Your task to perform on an android device: Search for "lenovo thinkpad" on ebay, select the first entry, and add it to the cart. Image 0: 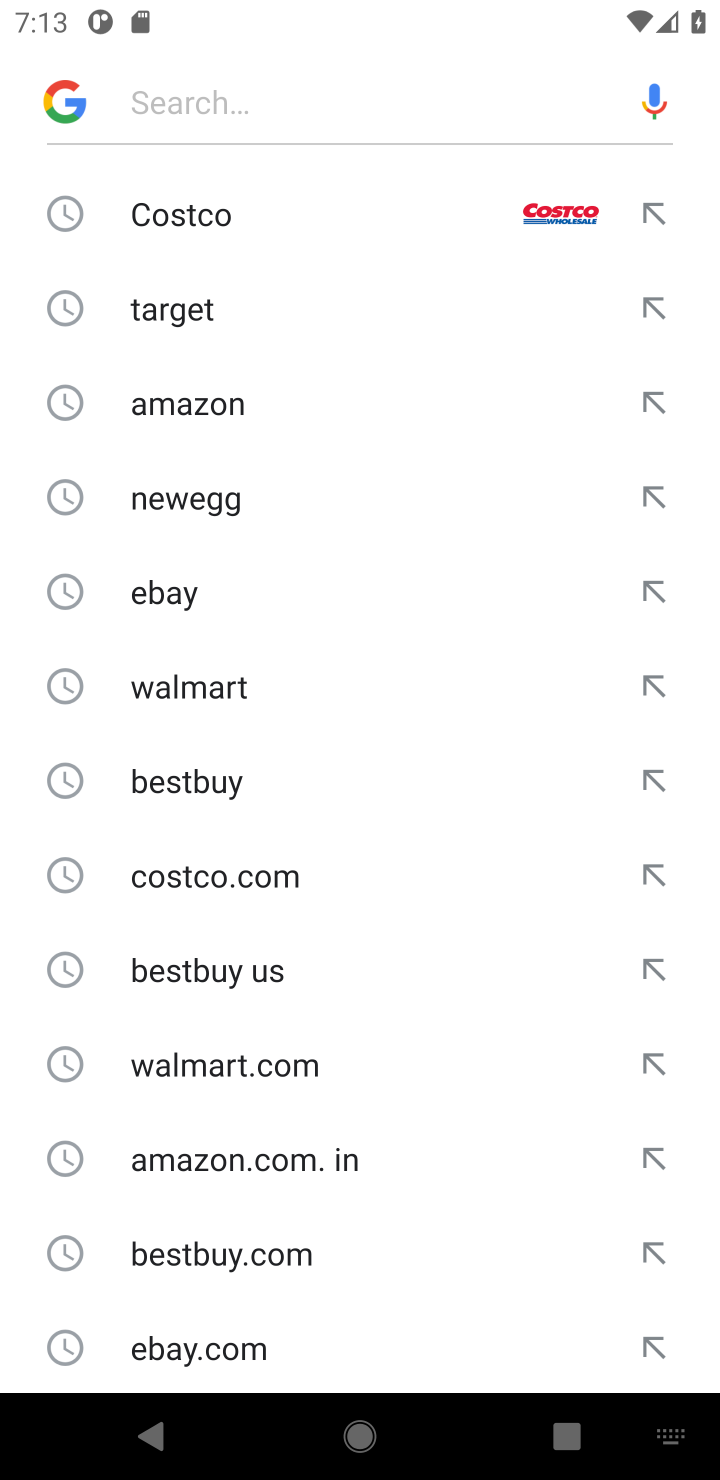
Step 0: press home button
Your task to perform on an android device: Search for "lenovo thinkpad" on ebay, select the first entry, and add it to the cart. Image 1: 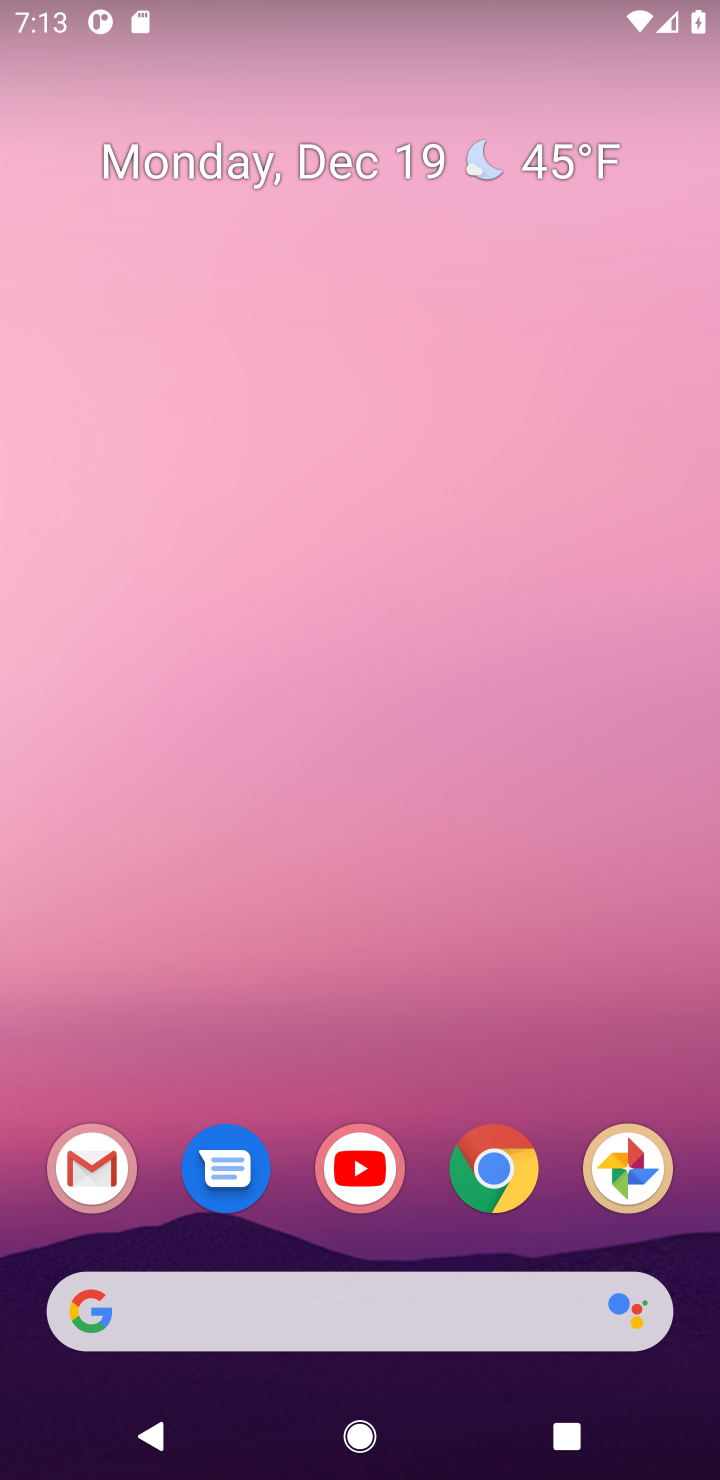
Step 1: click (494, 1174)
Your task to perform on an android device: Search for "lenovo thinkpad" on ebay, select the first entry, and add it to the cart. Image 2: 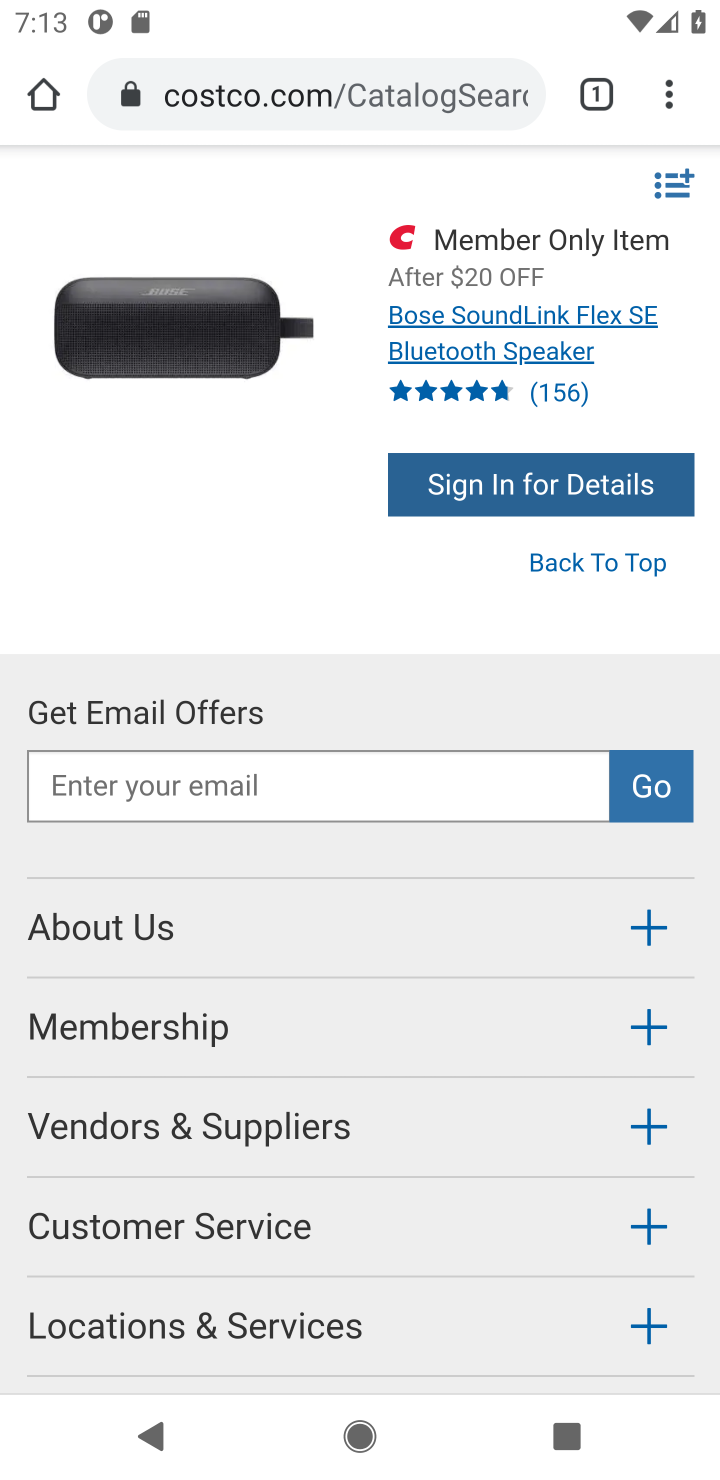
Step 2: click (218, 104)
Your task to perform on an android device: Search for "lenovo thinkpad" on ebay, select the first entry, and add it to the cart. Image 3: 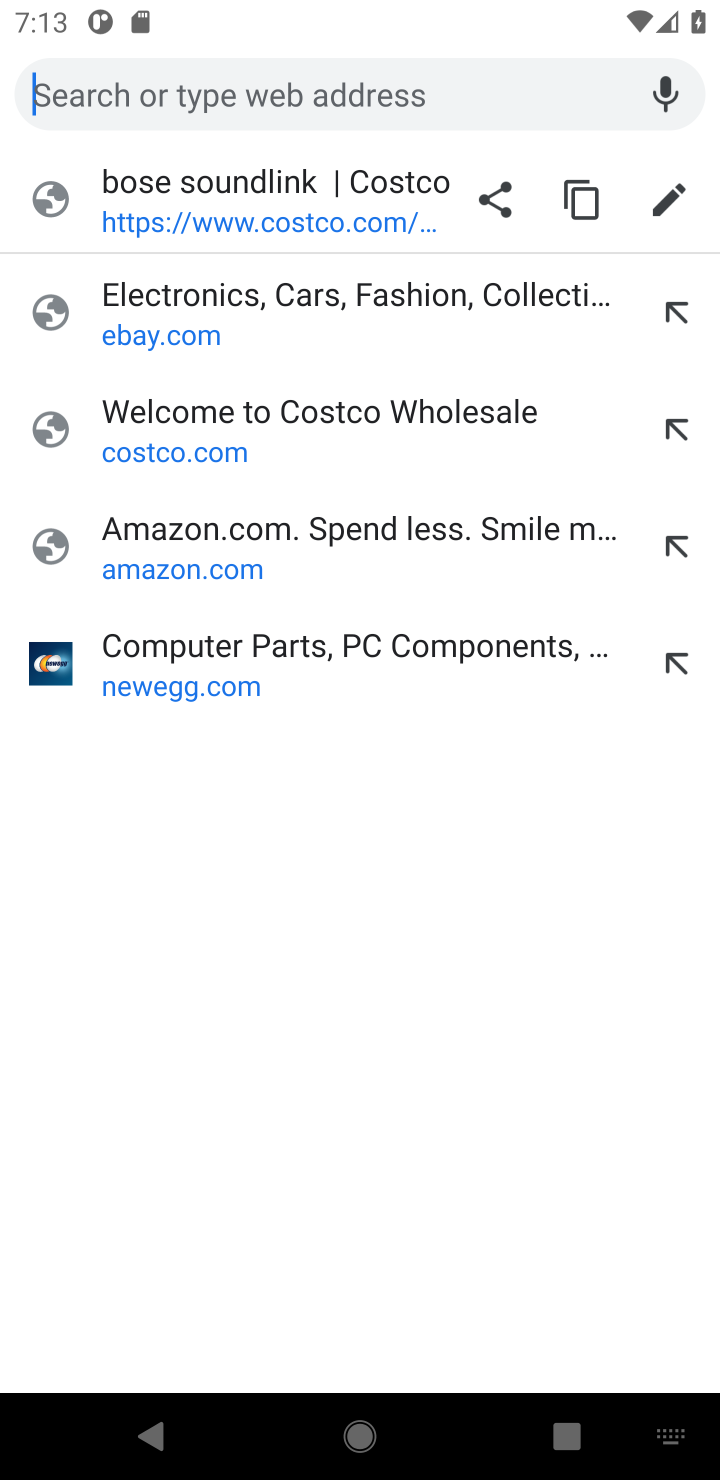
Step 3: click (165, 315)
Your task to perform on an android device: Search for "lenovo thinkpad" on ebay, select the first entry, and add it to the cart. Image 4: 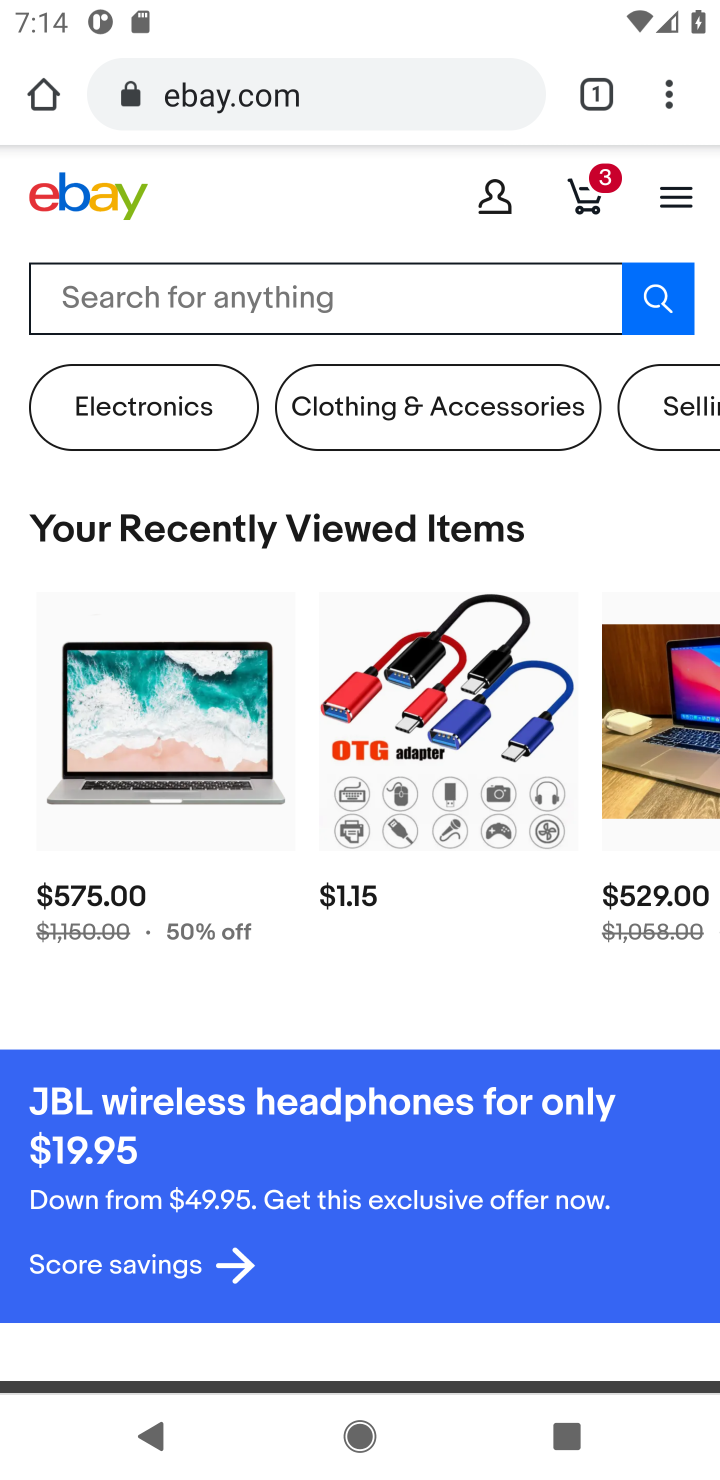
Step 4: click (108, 299)
Your task to perform on an android device: Search for "lenovo thinkpad" on ebay, select the first entry, and add it to the cart. Image 5: 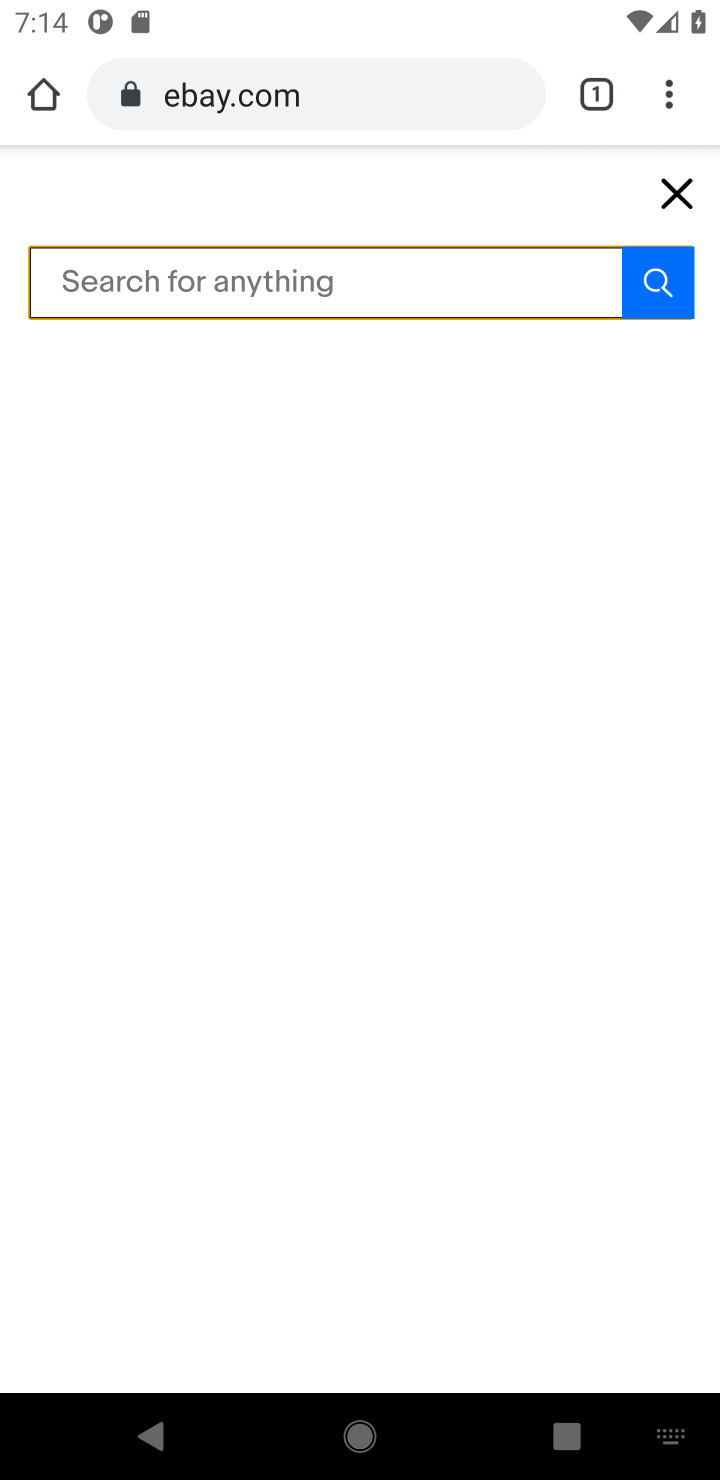
Step 5: type "lenovo thinkpad"
Your task to perform on an android device: Search for "lenovo thinkpad" on ebay, select the first entry, and add it to the cart. Image 6: 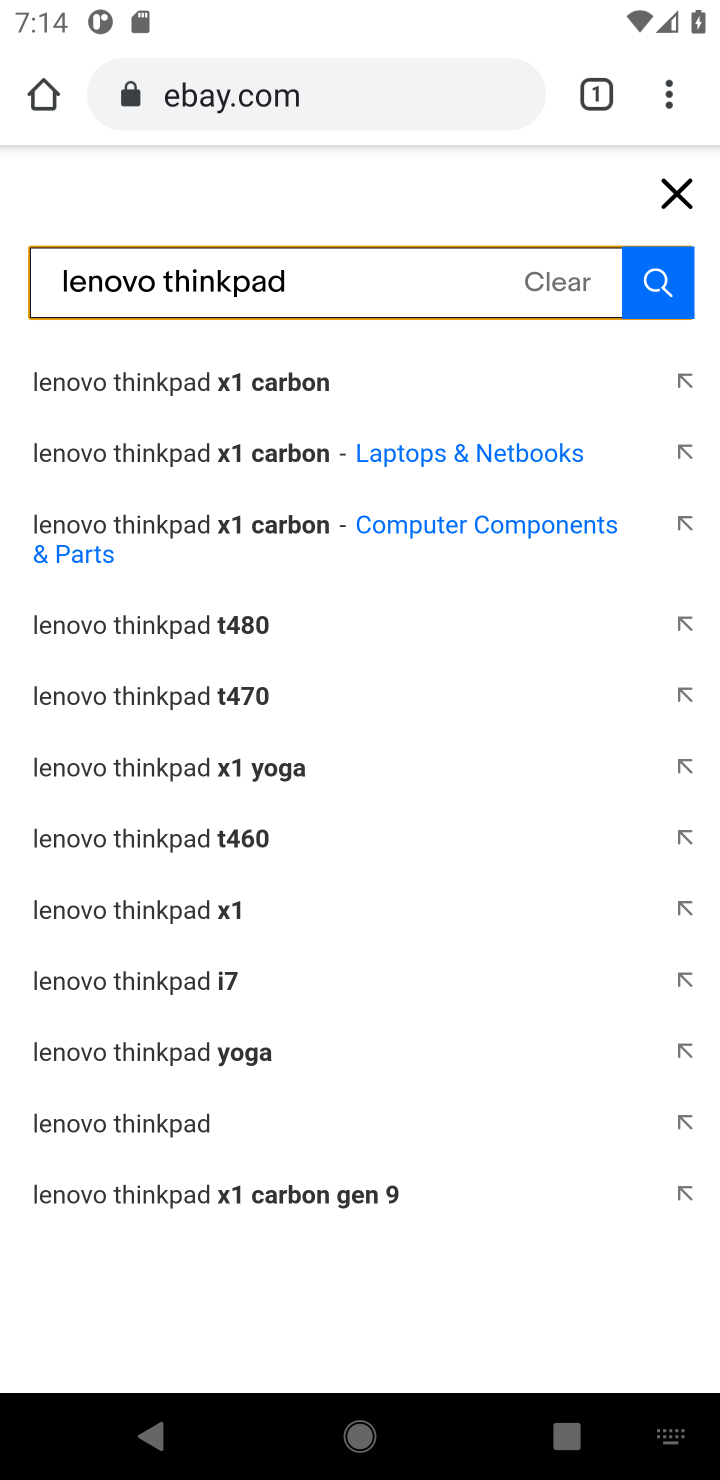
Step 6: click (180, 1124)
Your task to perform on an android device: Search for "lenovo thinkpad" on ebay, select the first entry, and add it to the cart. Image 7: 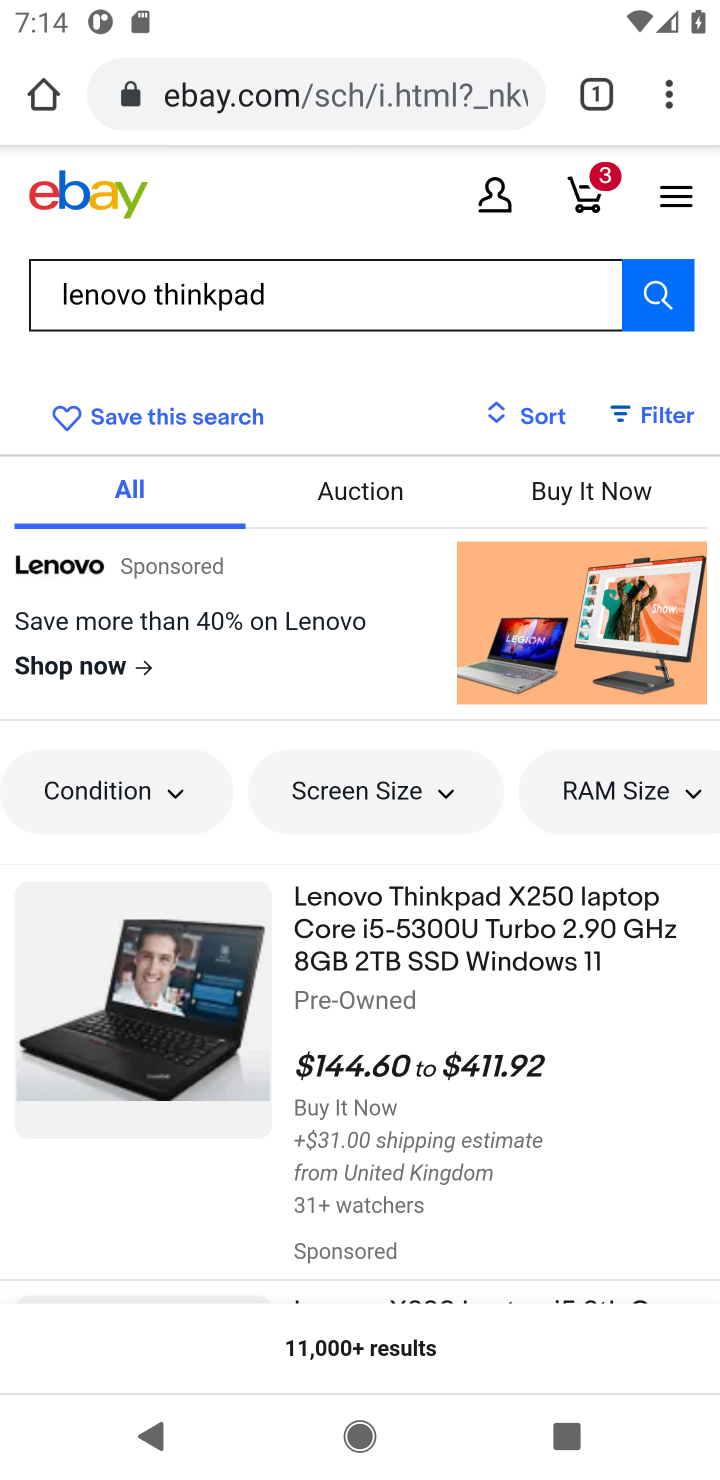
Step 7: drag from (267, 1049) to (311, 694)
Your task to perform on an android device: Search for "lenovo thinkpad" on ebay, select the first entry, and add it to the cart. Image 8: 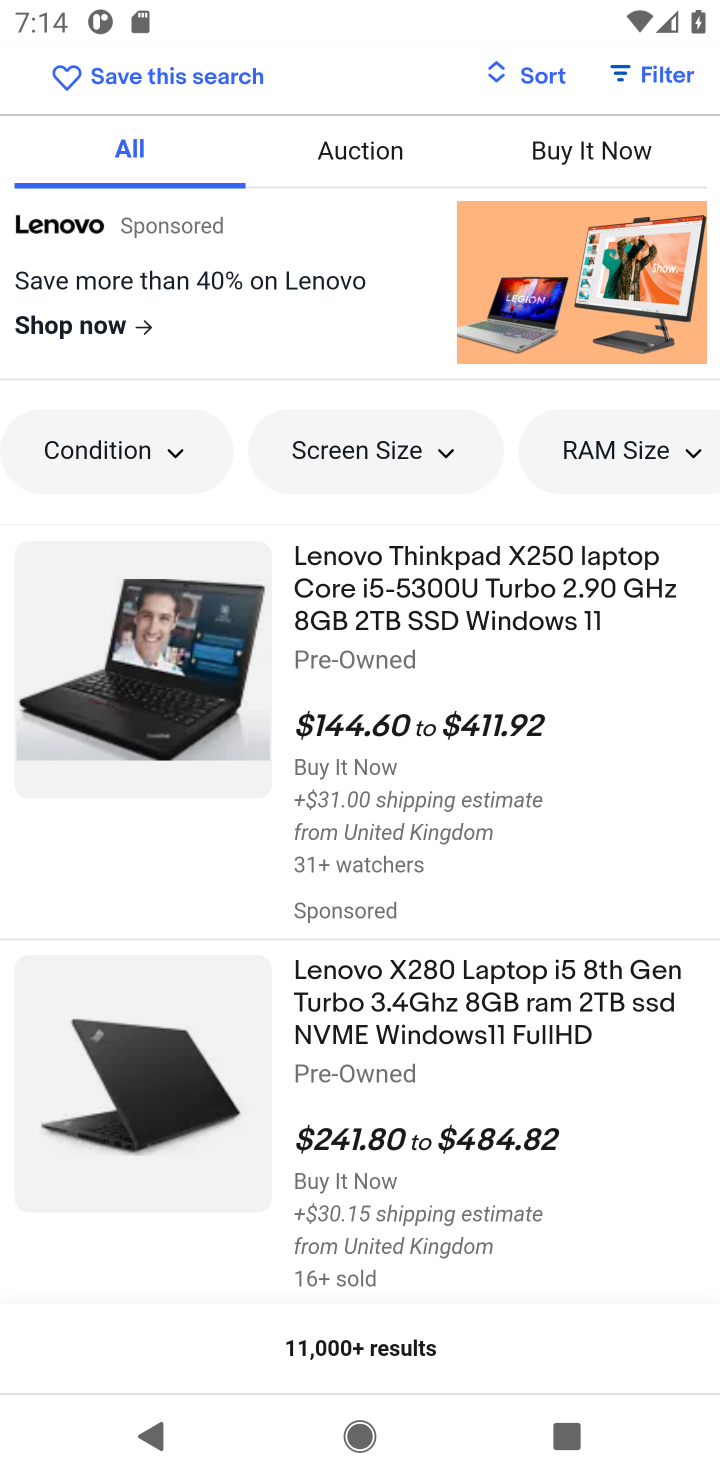
Step 8: click (400, 614)
Your task to perform on an android device: Search for "lenovo thinkpad" on ebay, select the first entry, and add it to the cart. Image 9: 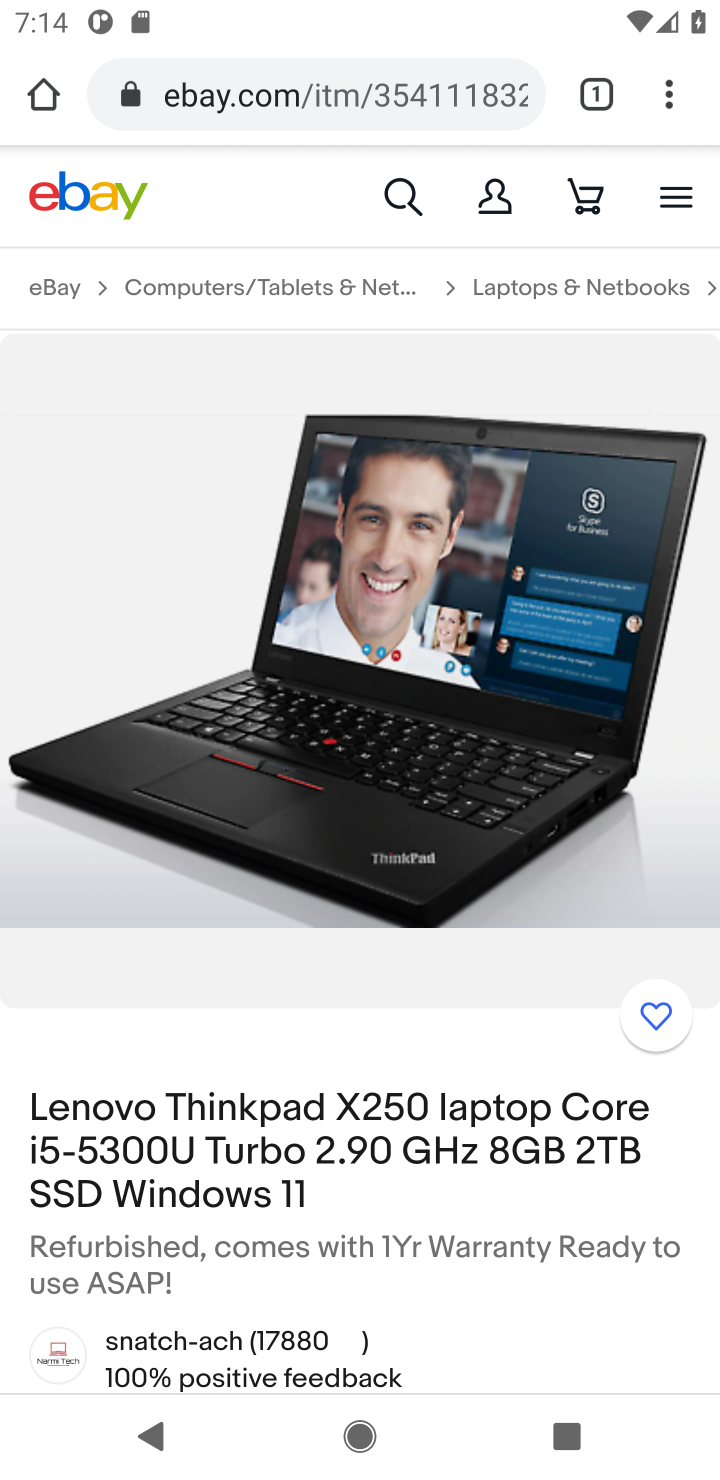
Step 9: drag from (354, 1070) to (378, 549)
Your task to perform on an android device: Search for "lenovo thinkpad" on ebay, select the first entry, and add it to the cart. Image 10: 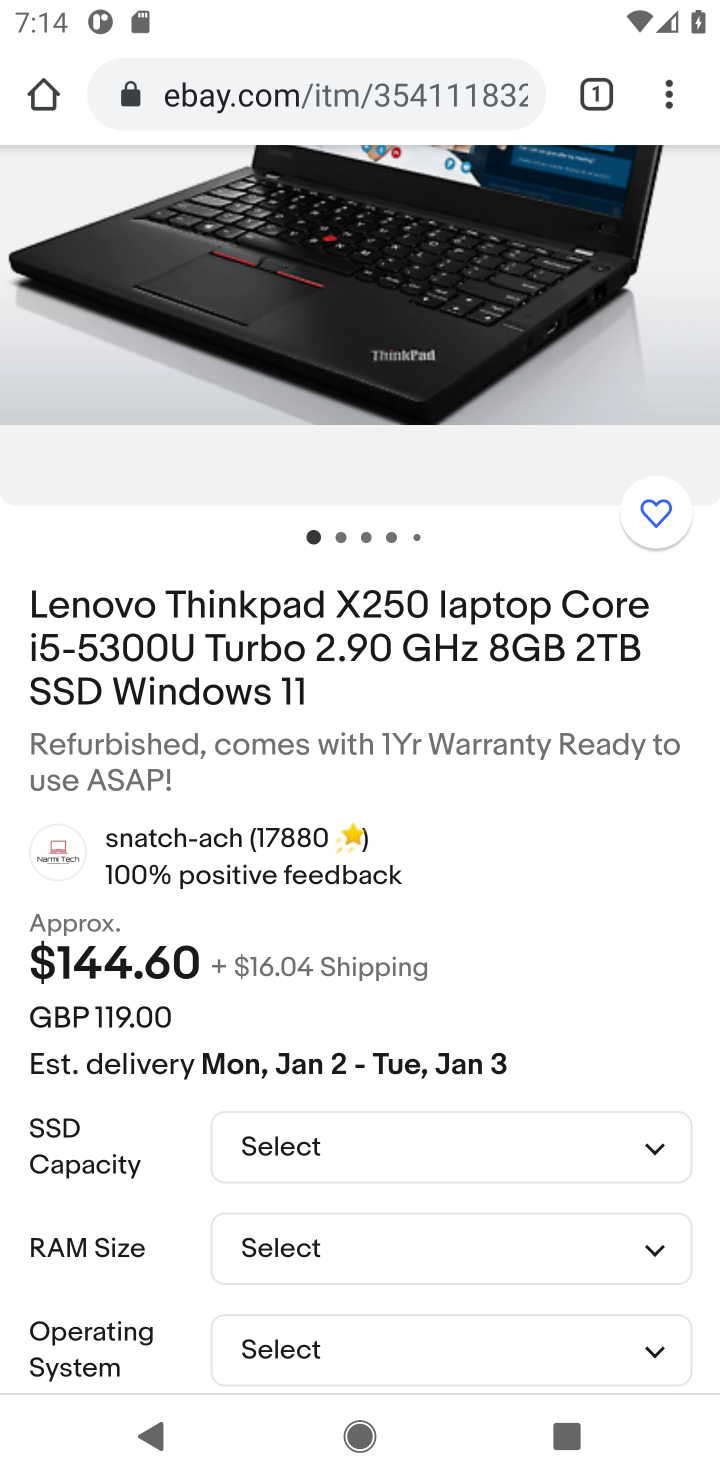
Step 10: drag from (349, 922) to (367, 500)
Your task to perform on an android device: Search for "lenovo thinkpad" on ebay, select the first entry, and add it to the cart. Image 11: 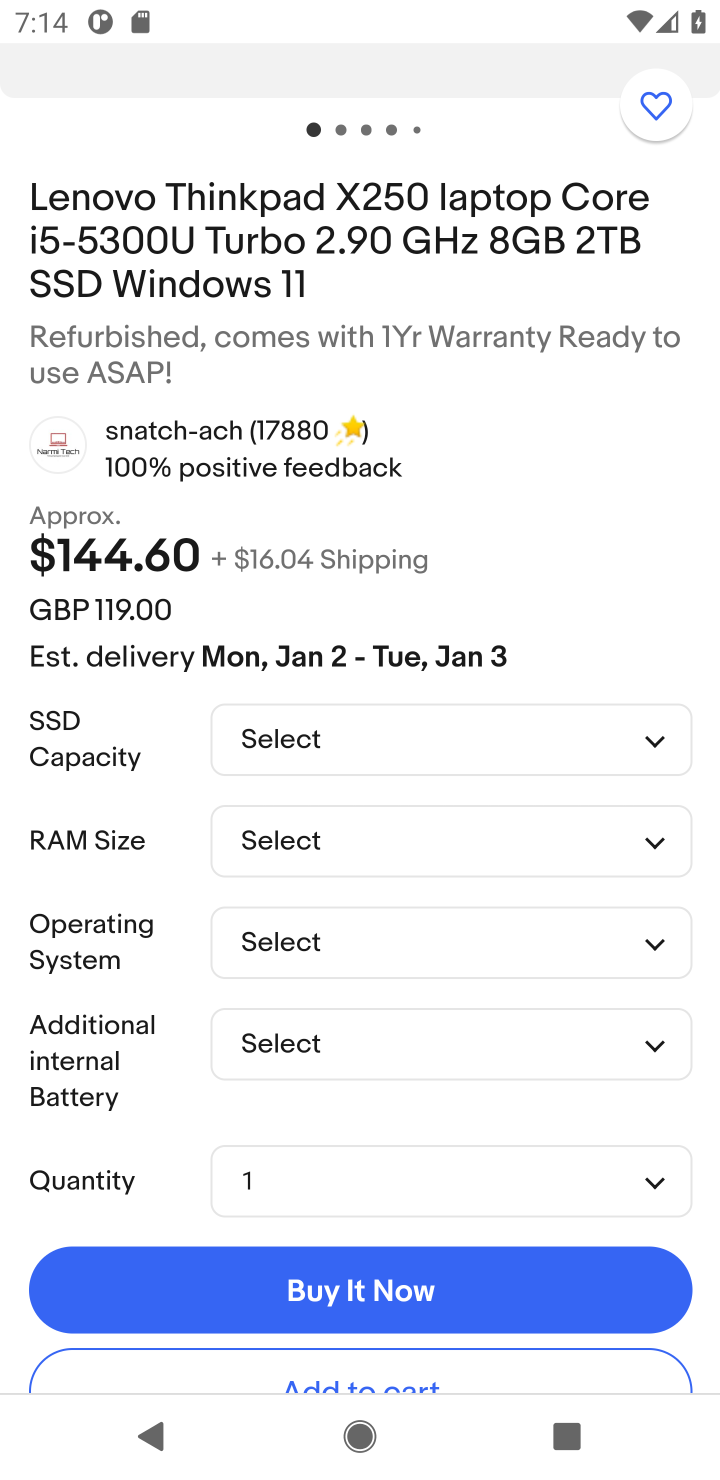
Step 11: click (641, 749)
Your task to perform on an android device: Search for "lenovo thinkpad" on ebay, select the first entry, and add it to the cart. Image 12: 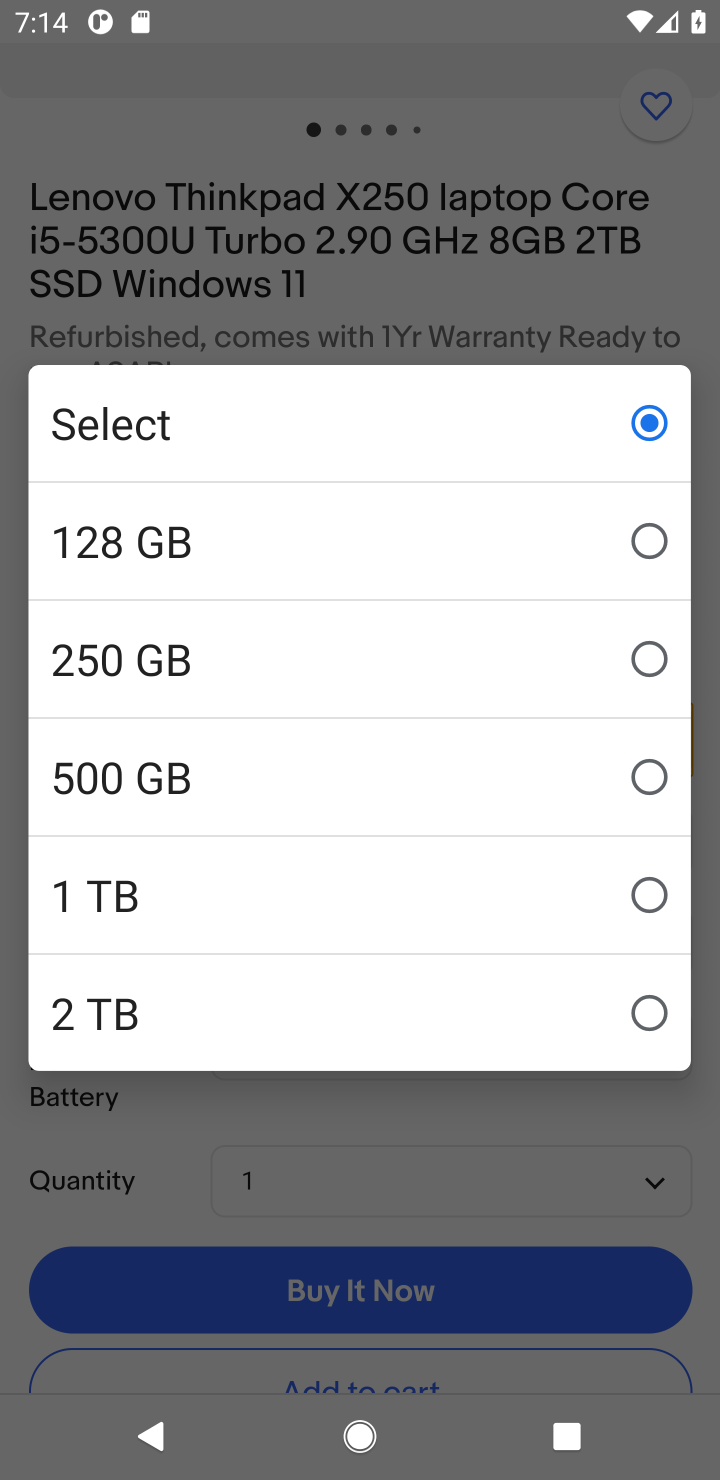
Step 12: click (105, 544)
Your task to perform on an android device: Search for "lenovo thinkpad" on ebay, select the first entry, and add it to the cart. Image 13: 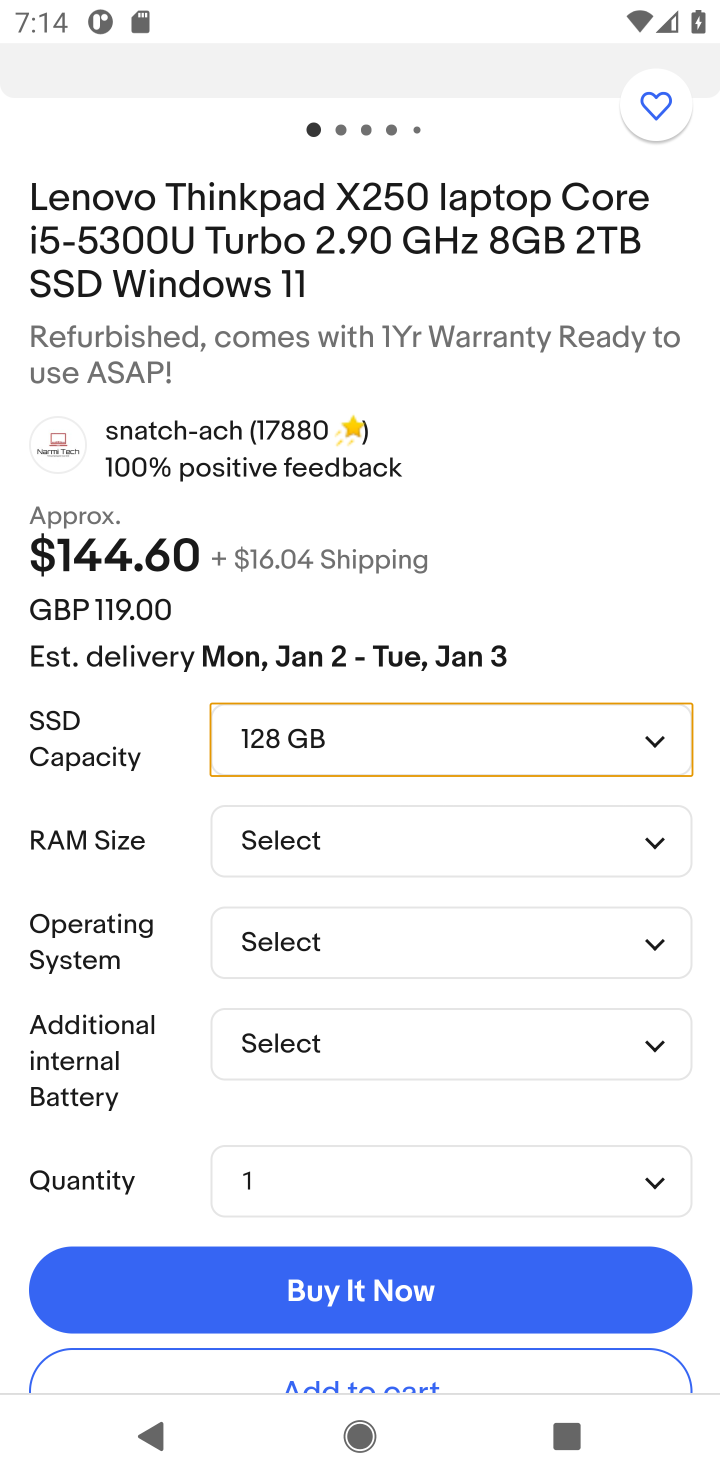
Step 13: click (658, 854)
Your task to perform on an android device: Search for "lenovo thinkpad" on ebay, select the first entry, and add it to the cart. Image 14: 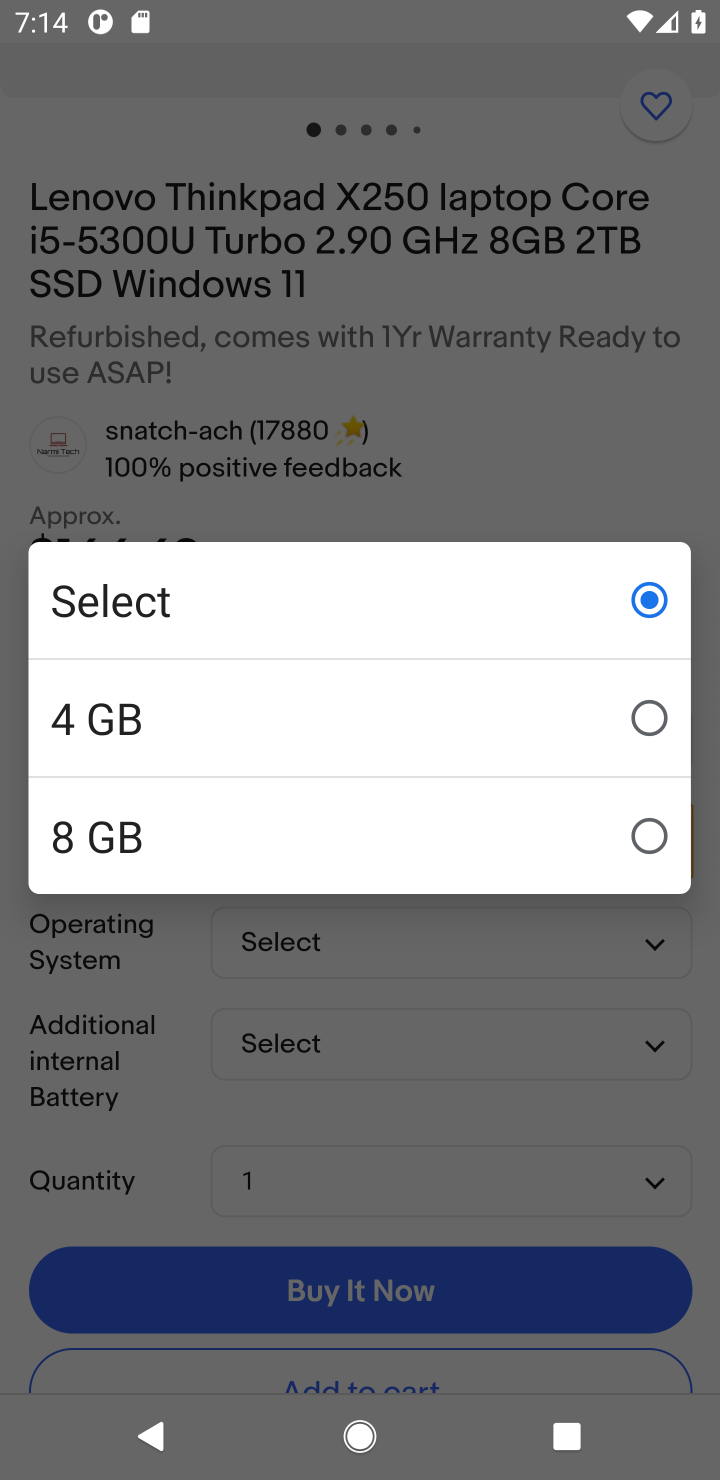
Step 14: click (117, 731)
Your task to perform on an android device: Search for "lenovo thinkpad" on ebay, select the first entry, and add it to the cart. Image 15: 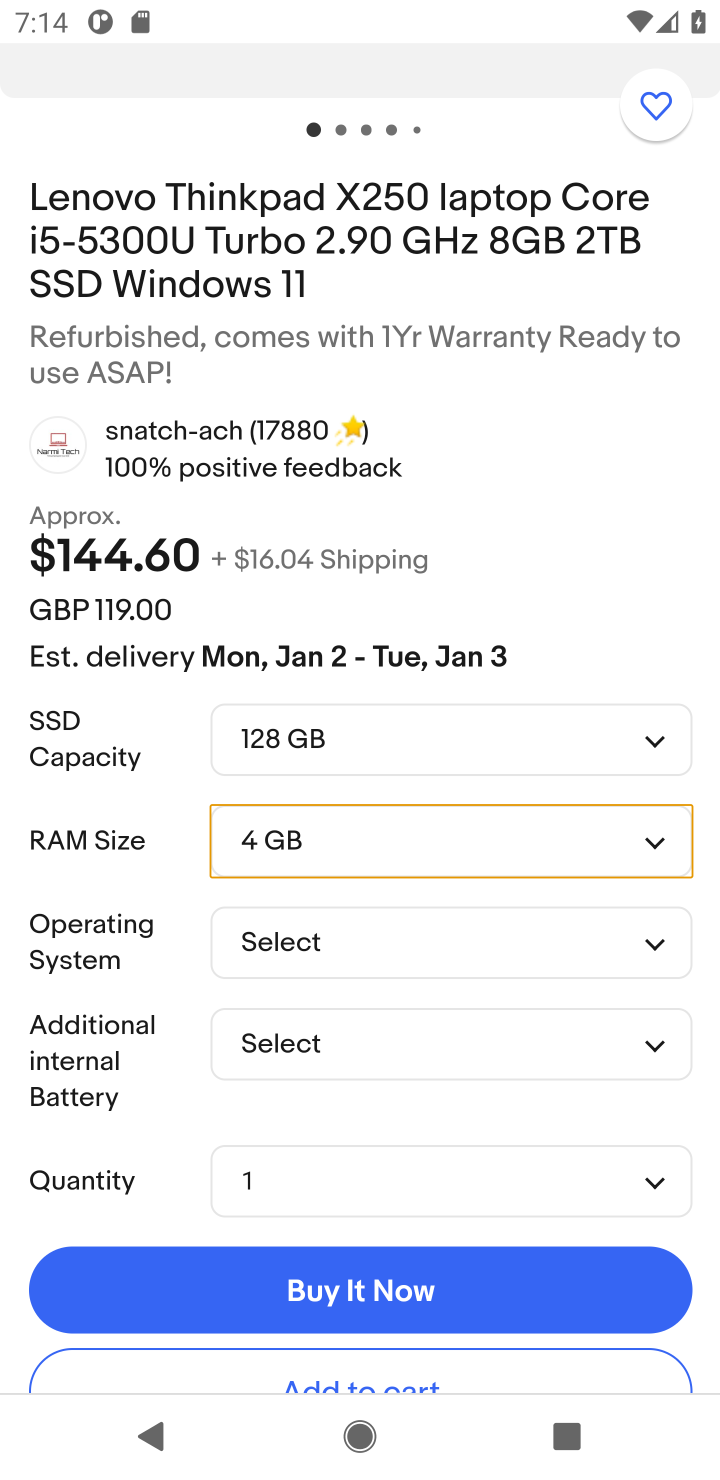
Step 15: click (663, 952)
Your task to perform on an android device: Search for "lenovo thinkpad" on ebay, select the first entry, and add it to the cart. Image 16: 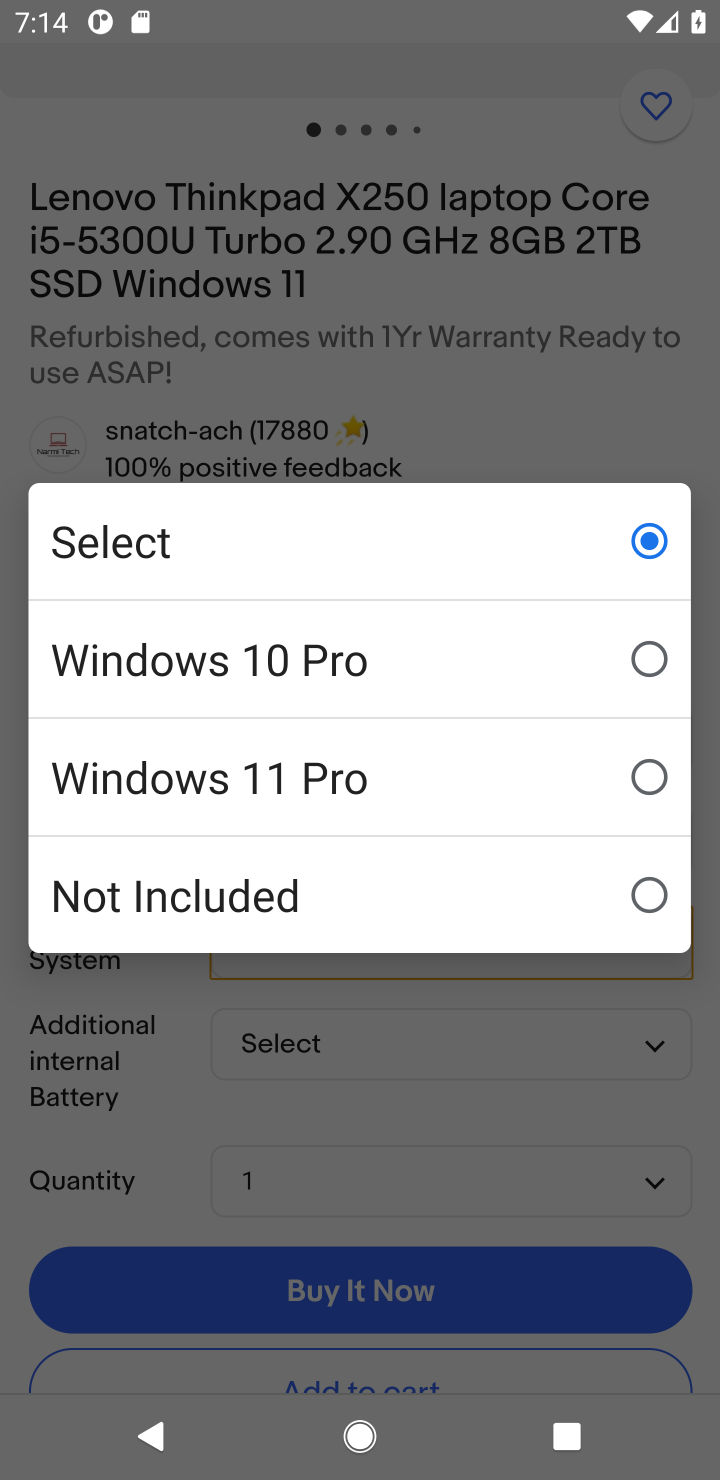
Step 16: click (134, 786)
Your task to perform on an android device: Search for "lenovo thinkpad" on ebay, select the first entry, and add it to the cart. Image 17: 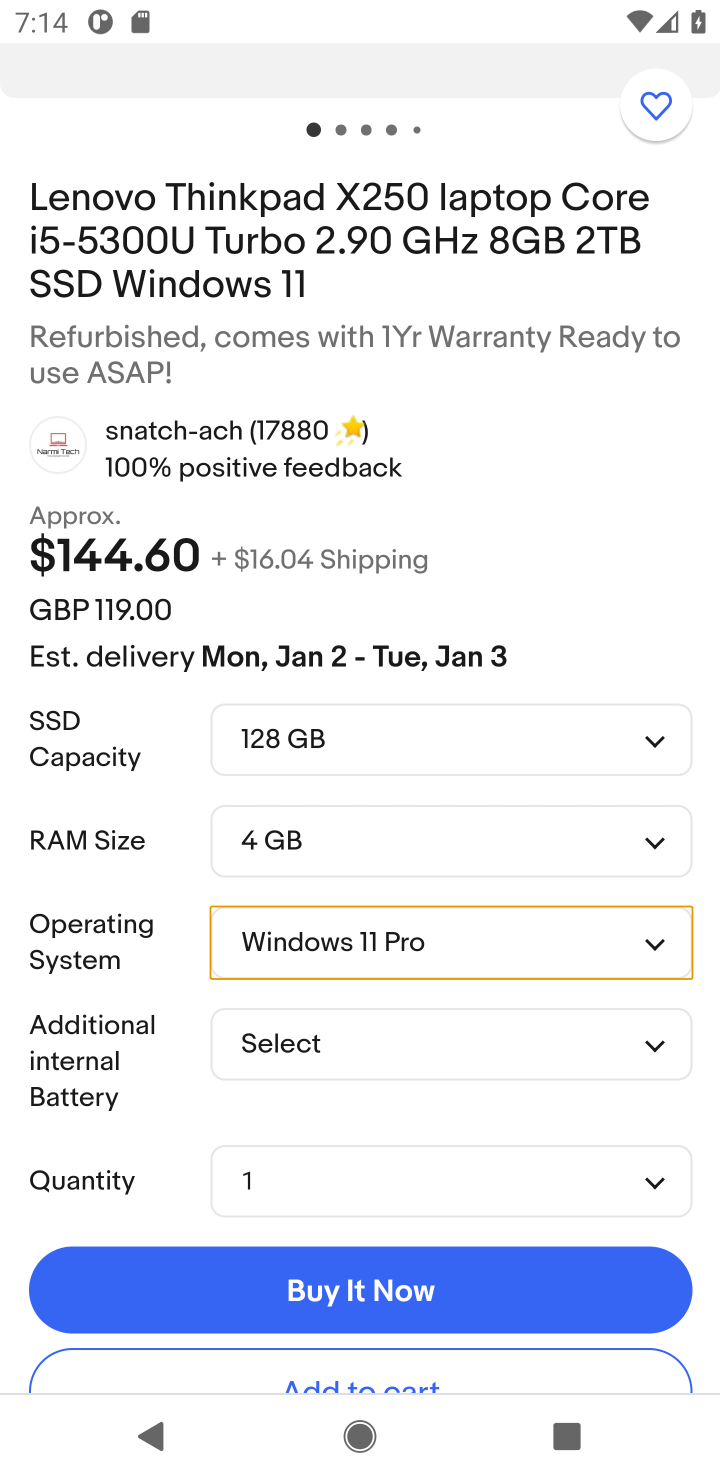
Step 17: click (661, 1030)
Your task to perform on an android device: Search for "lenovo thinkpad" on ebay, select the first entry, and add it to the cart. Image 18: 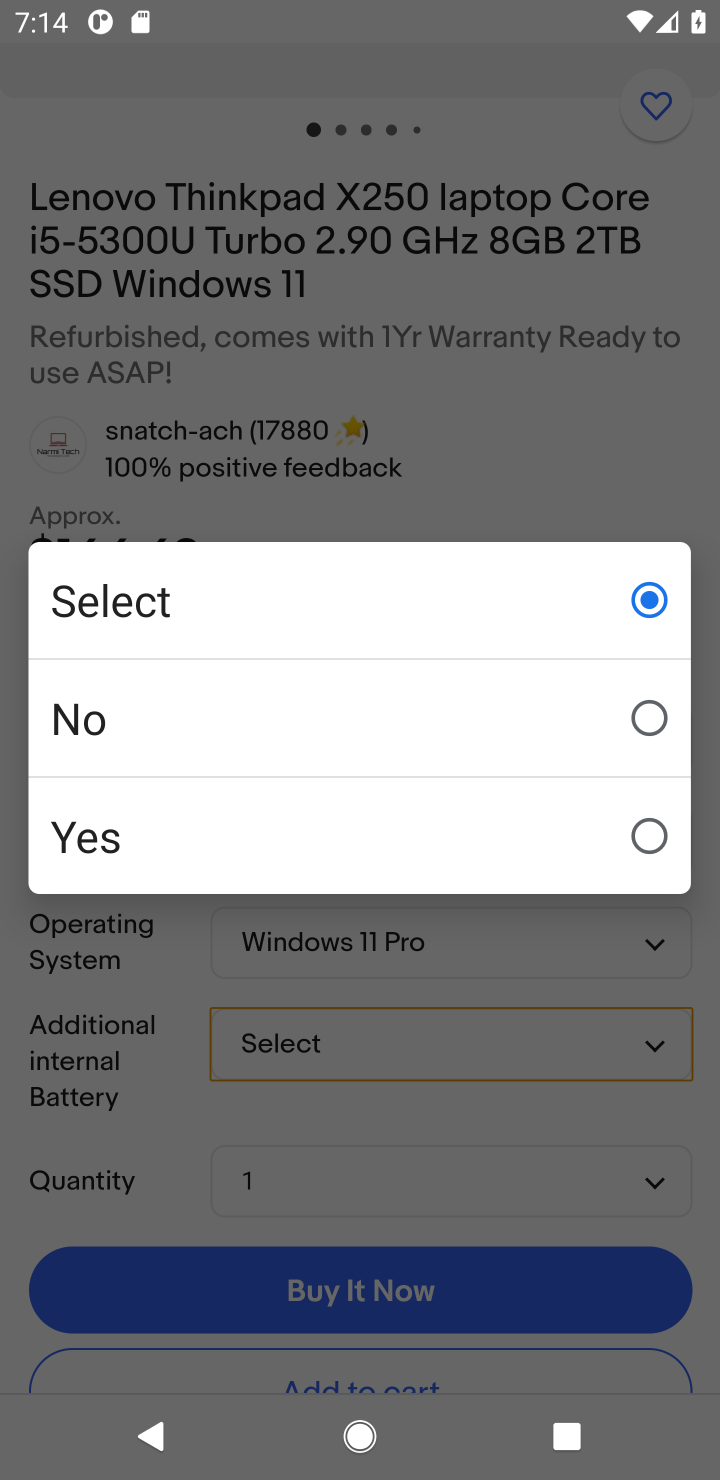
Step 18: click (69, 723)
Your task to perform on an android device: Search for "lenovo thinkpad" on ebay, select the first entry, and add it to the cart. Image 19: 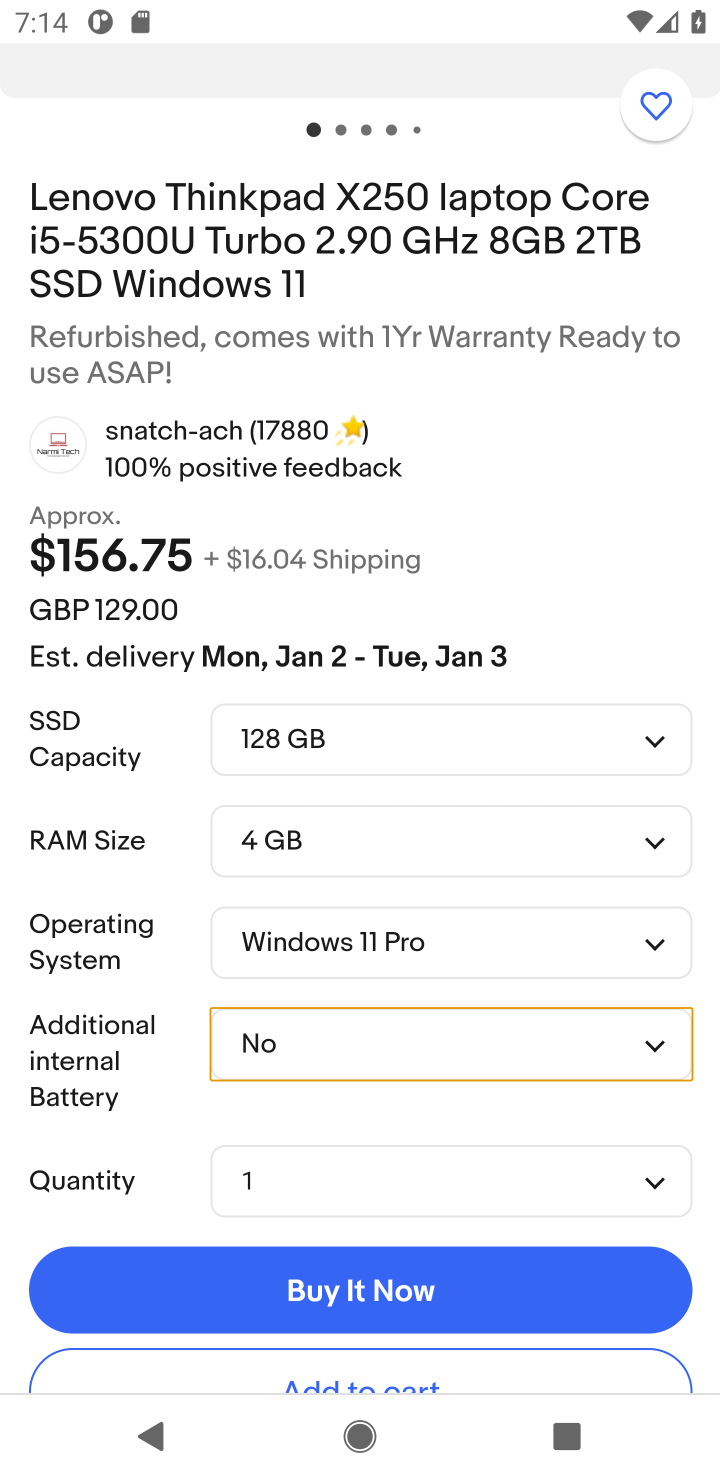
Step 19: drag from (231, 1043) to (249, 568)
Your task to perform on an android device: Search for "lenovo thinkpad" on ebay, select the first entry, and add it to the cart. Image 20: 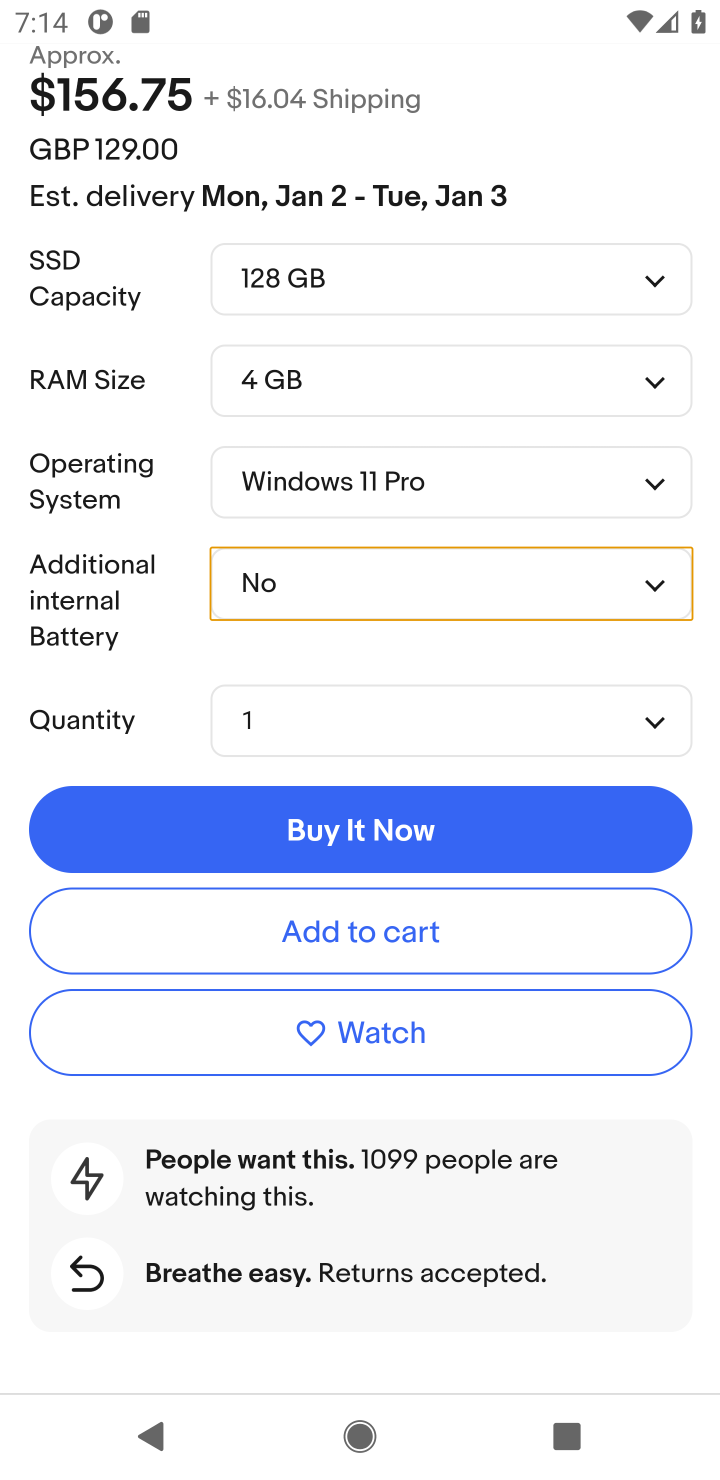
Step 20: click (335, 928)
Your task to perform on an android device: Search for "lenovo thinkpad" on ebay, select the first entry, and add it to the cart. Image 21: 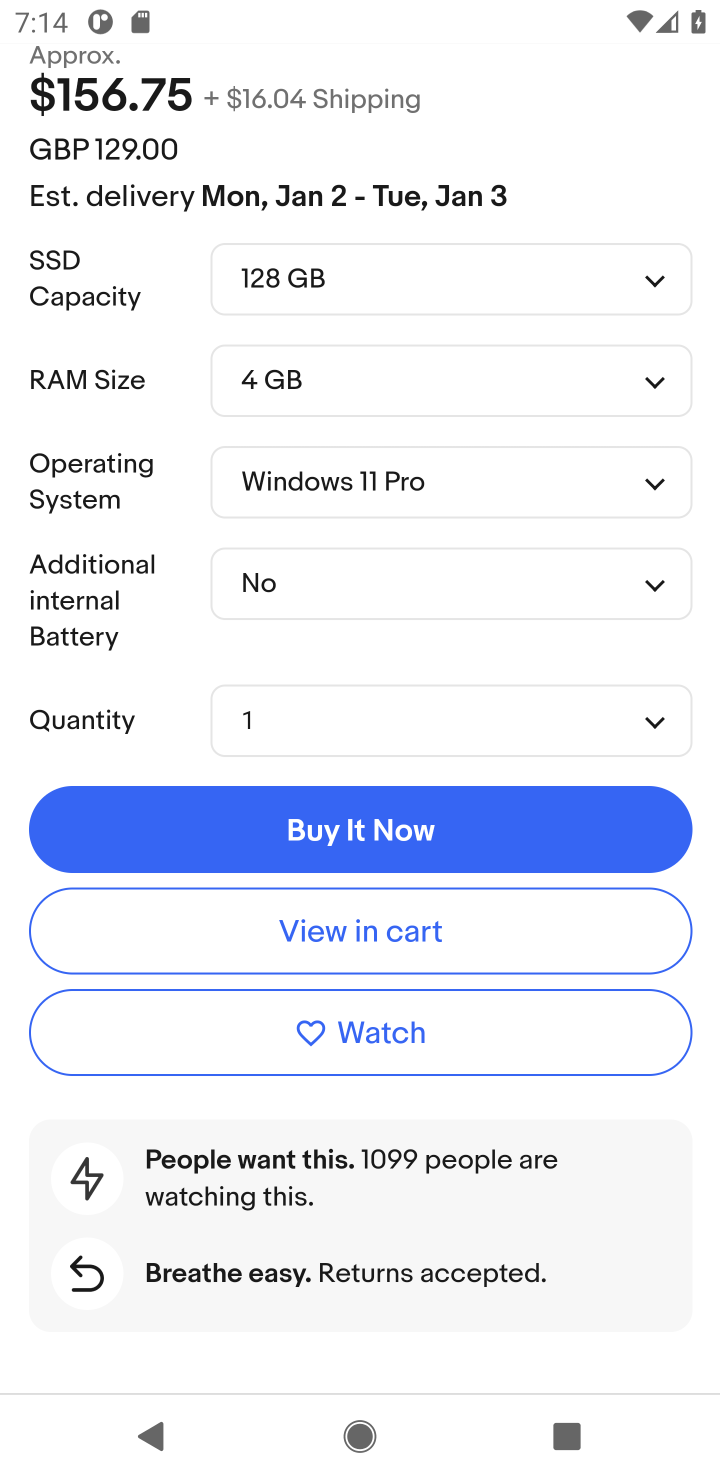
Step 21: task complete